Your task to perform on an android device: Go to Reddit.com Image 0: 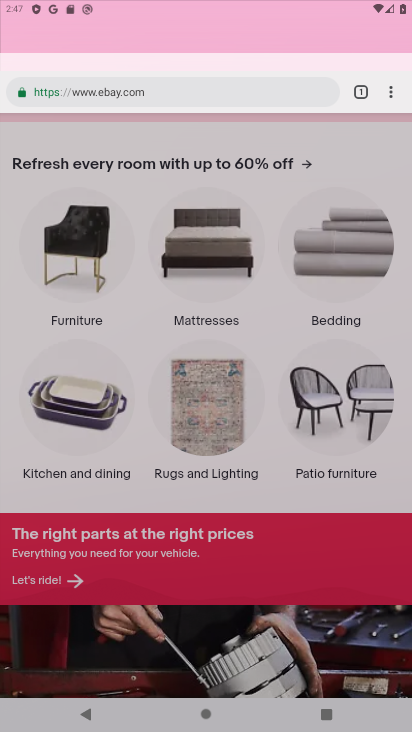
Step 0: press home button
Your task to perform on an android device: Go to Reddit.com Image 1: 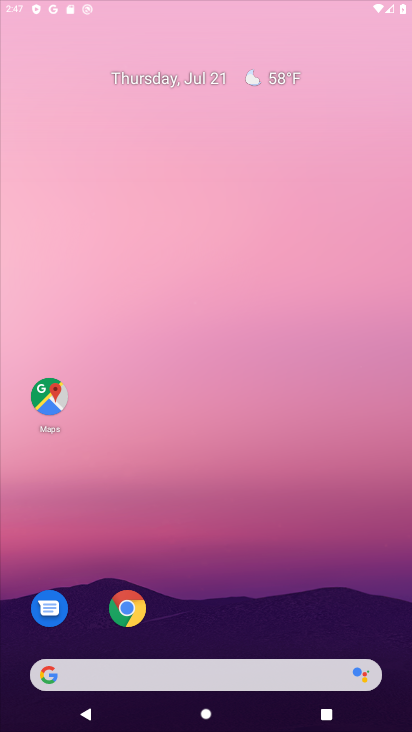
Step 1: press home button
Your task to perform on an android device: Go to Reddit.com Image 2: 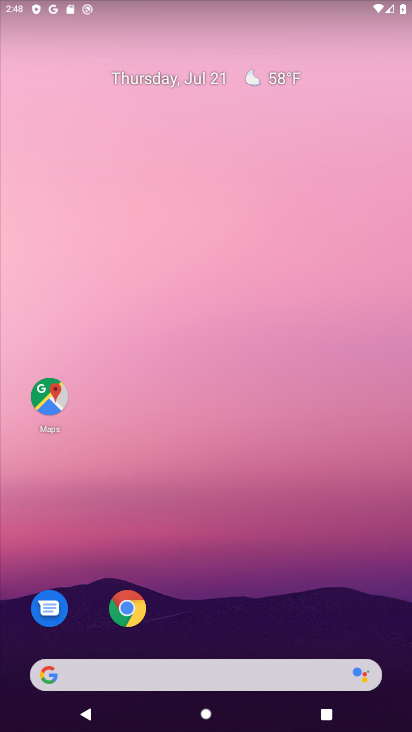
Step 2: click (124, 603)
Your task to perform on an android device: Go to Reddit.com Image 3: 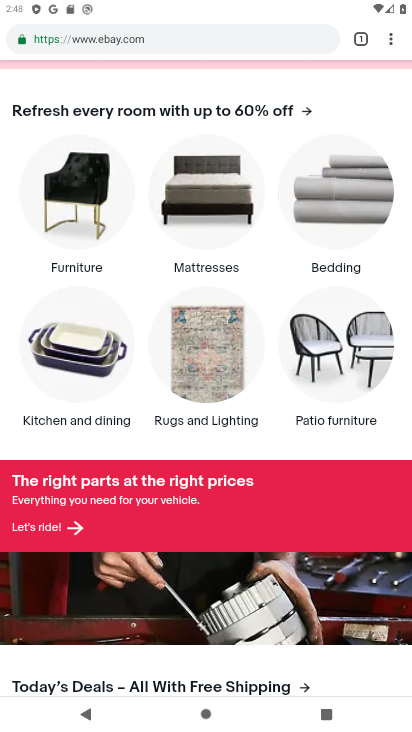
Step 3: click (362, 37)
Your task to perform on an android device: Go to Reddit.com Image 4: 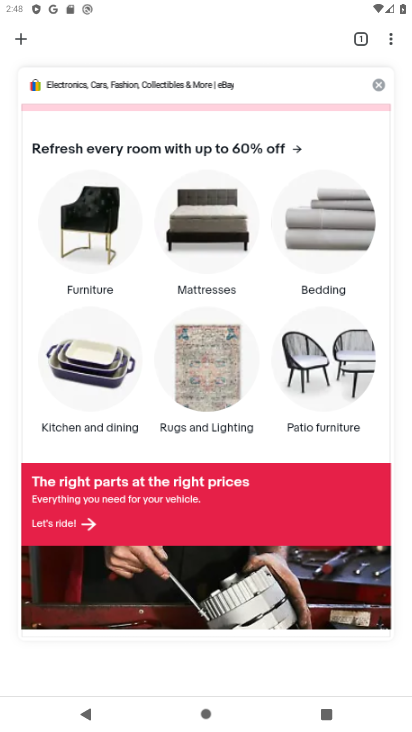
Step 4: click (17, 36)
Your task to perform on an android device: Go to Reddit.com Image 5: 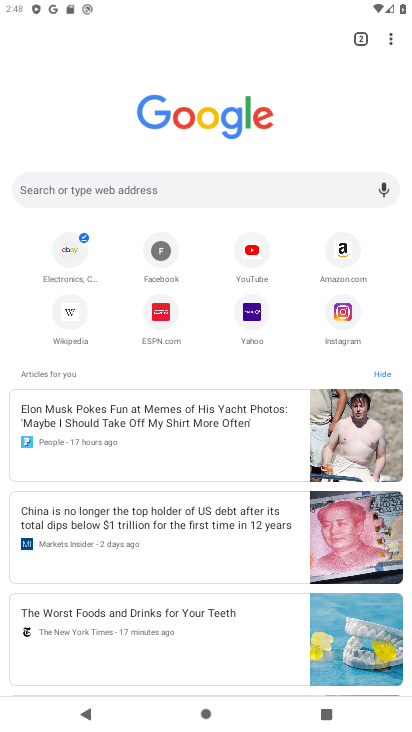
Step 5: click (118, 183)
Your task to perform on an android device: Go to Reddit.com Image 6: 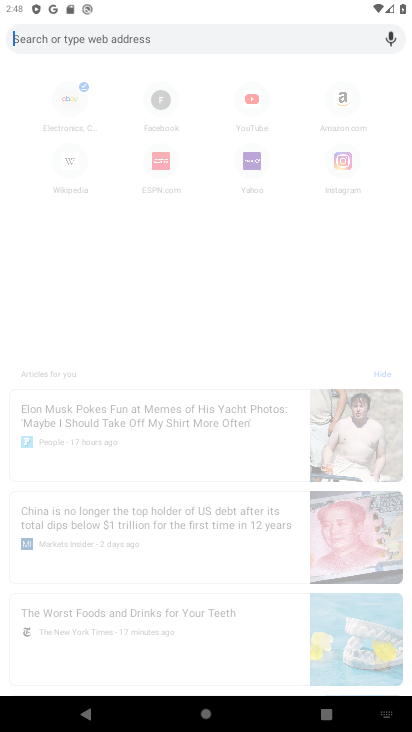
Step 6: type "reddit.com"
Your task to perform on an android device: Go to Reddit.com Image 7: 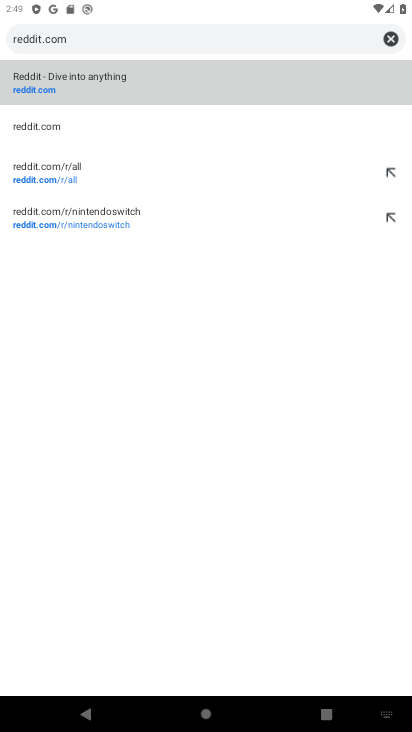
Step 7: click (99, 87)
Your task to perform on an android device: Go to Reddit.com Image 8: 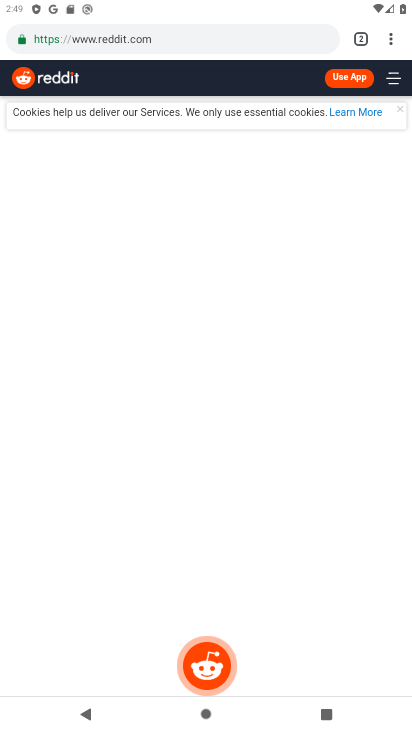
Step 8: task complete